Your task to perform on an android device: Do I have any events today? Image 0: 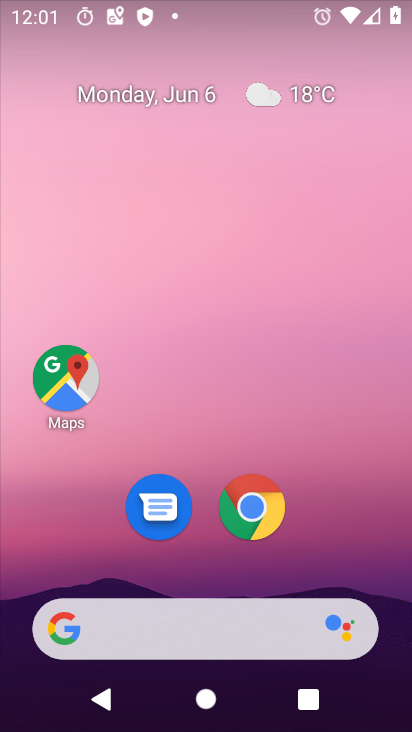
Step 0: drag from (229, 686) to (195, 9)
Your task to perform on an android device: Do I have any events today? Image 1: 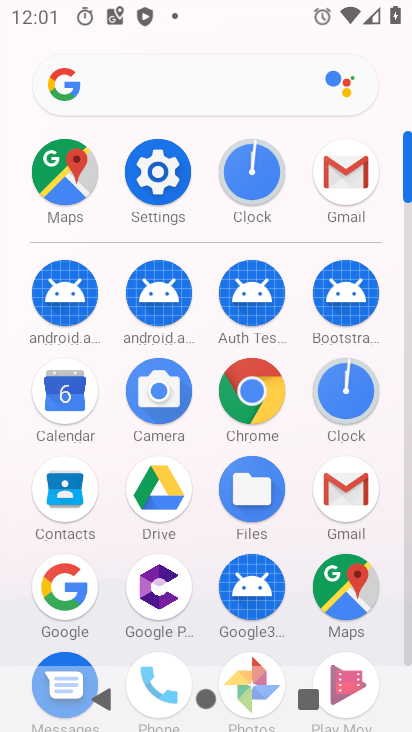
Step 1: click (61, 394)
Your task to perform on an android device: Do I have any events today? Image 2: 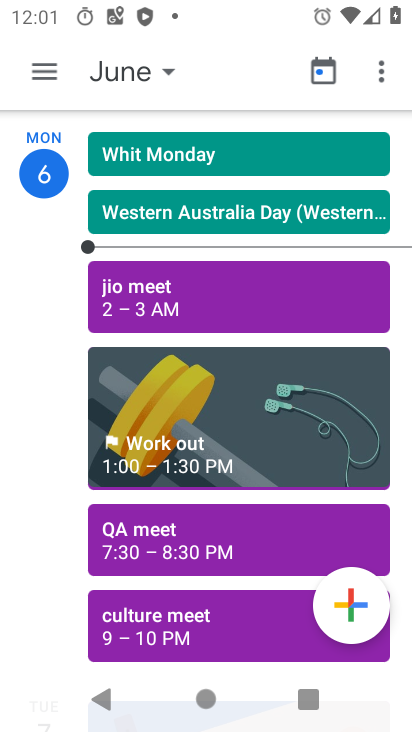
Step 2: click (169, 73)
Your task to perform on an android device: Do I have any events today? Image 3: 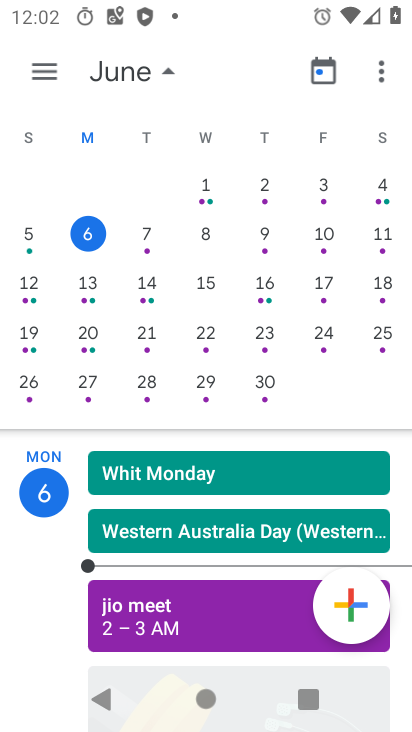
Step 3: click (44, 67)
Your task to perform on an android device: Do I have any events today? Image 4: 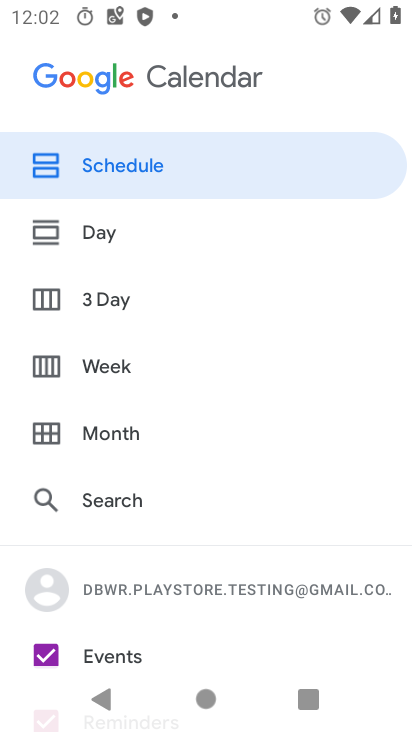
Step 4: drag from (163, 652) to (171, 175)
Your task to perform on an android device: Do I have any events today? Image 5: 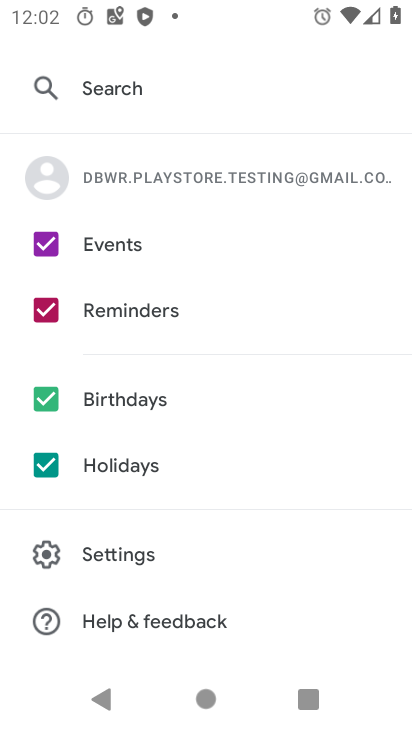
Step 5: click (53, 465)
Your task to perform on an android device: Do I have any events today? Image 6: 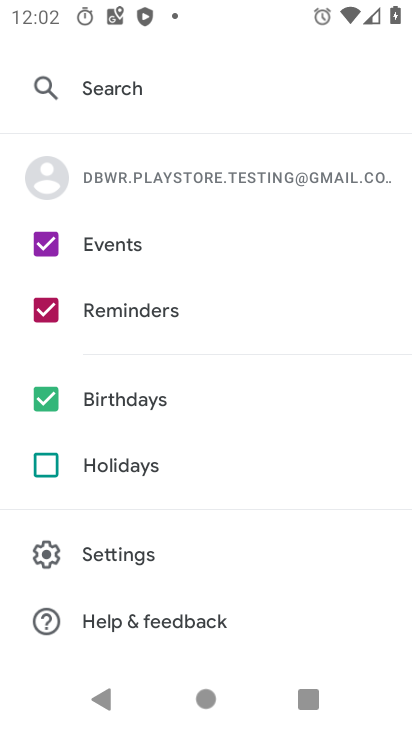
Step 6: click (42, 392)
Your task to perform on an android device: Do I have any events today? Image 7: 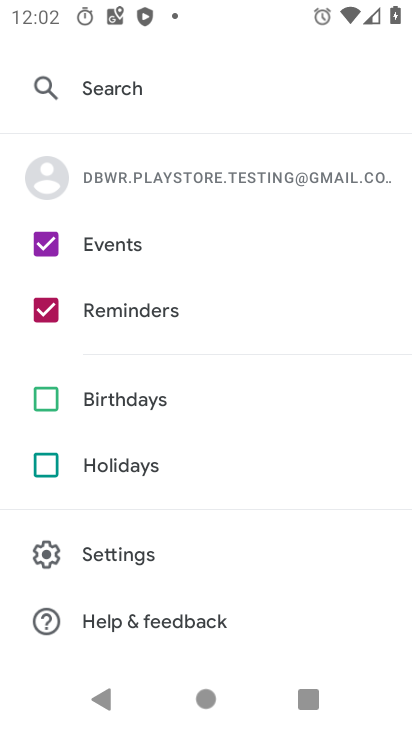
Step 7: click (46, 302)
Your task to perform on an android device: Do I have any events today? Image 8: 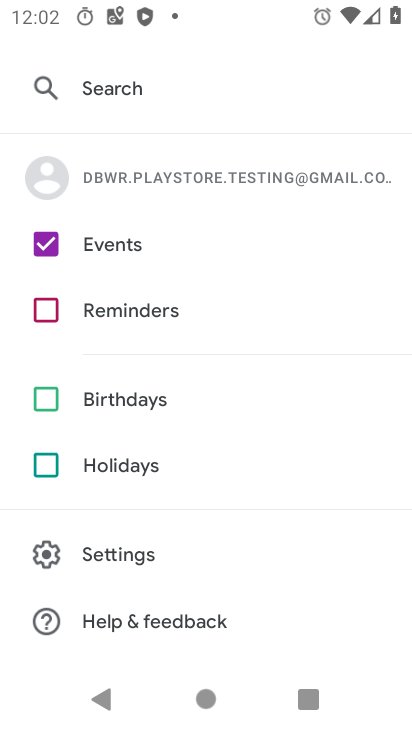
Step 8: drag from (284, 115) to (317, 469)
Your task to perform on an android device: Do I have any events today? Image 9: 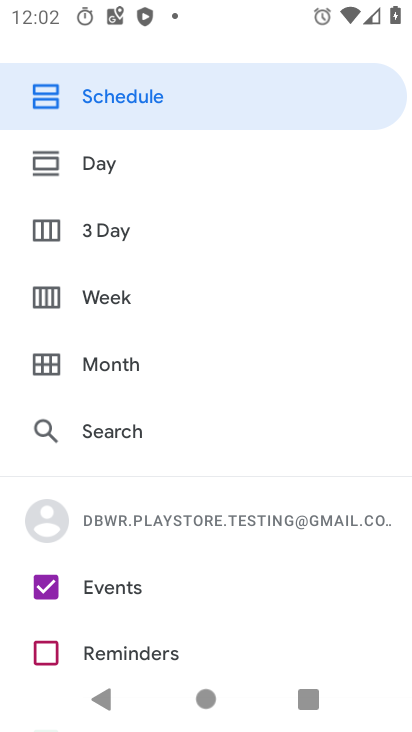
Step 9: drag from (204, 169) to (242, 363)
Your task to perform on an android device: Do I have any events today? Image 10: 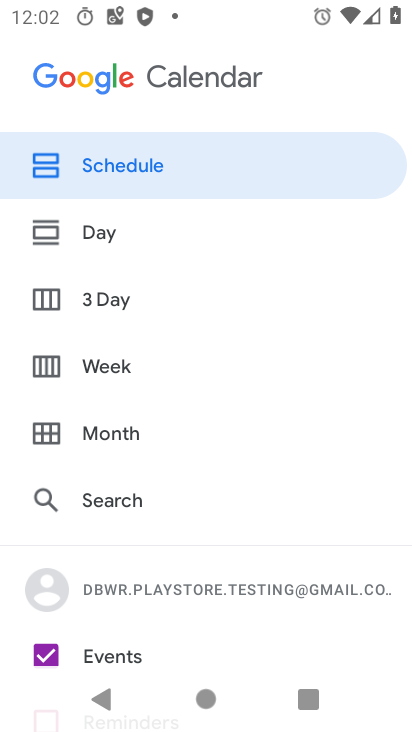
Step 10: click (133, 163)
Your task to perform on an android device: Do I have any events today? Image 11: 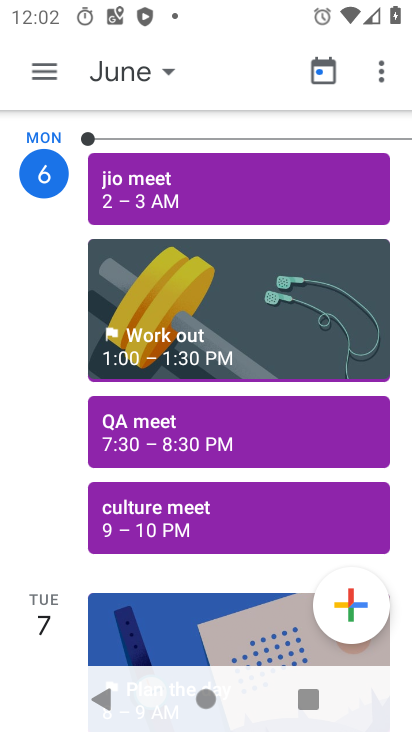
Step 11: task complete